Your task to perform on an android device: What's the weather going to be this weekend? Image 0: 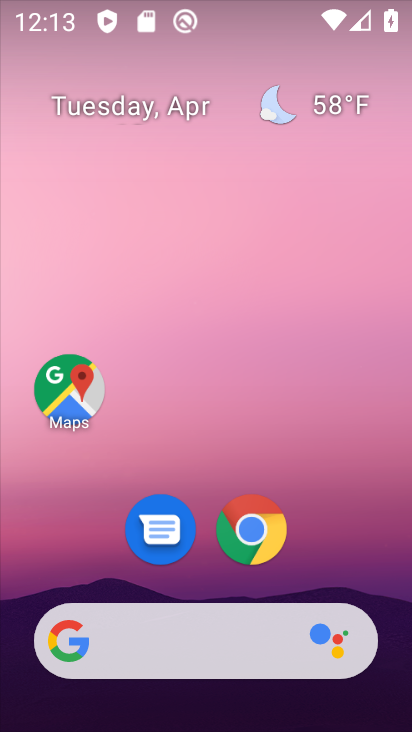
Step 0: drag from (367, 399) to (283, 25)
Your task to perform on an android device: What's the weather going to be this weekend? Image 1: 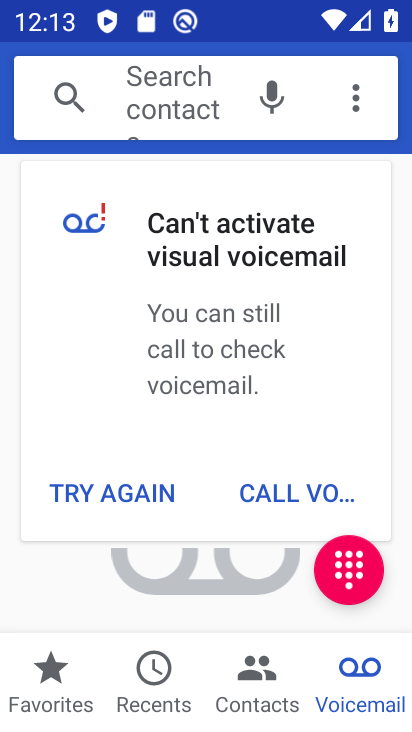
Step 1: press home button
Your task to perform on an android device: What's the weather going to be this weekend? Image 2: 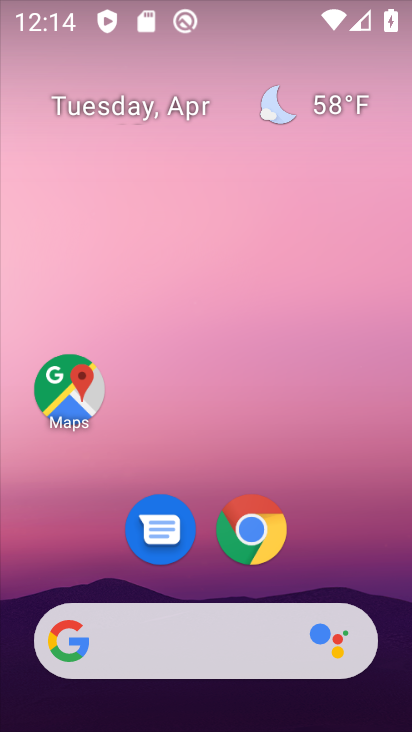
Step 2: click (305, 110)
Your task to perform on an android device: What's the weather going to be this weekend? Image 3: 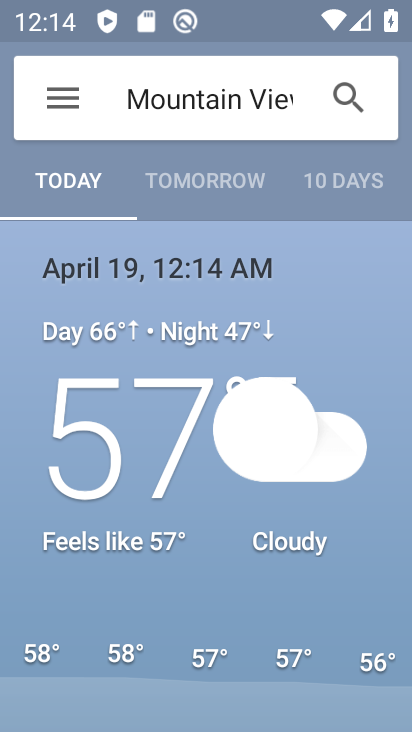
Step 3: task complete